Your task to perform on an android device: Go to internet settings Image 0: 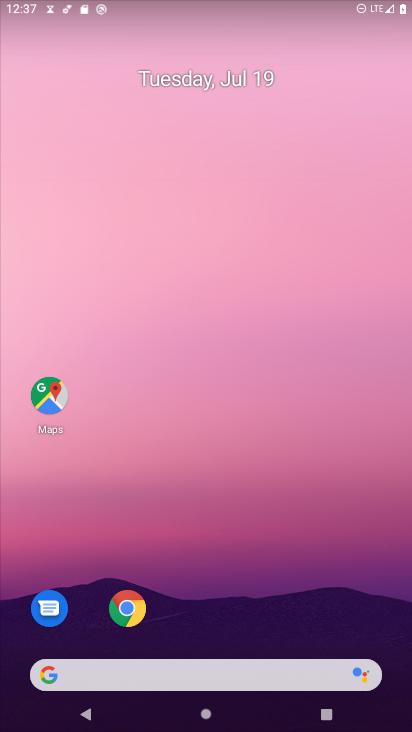
Step 0: drag from (292, 636) to (319, 75)
Your task to perform on an android device: Go to internet settings Image 1: 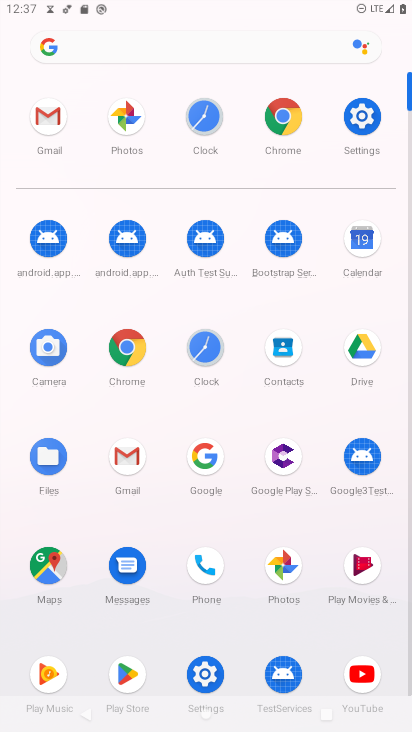
Step 1: click (370, 121)
Your task to perform on an android device: Go to internet settings Image 2: 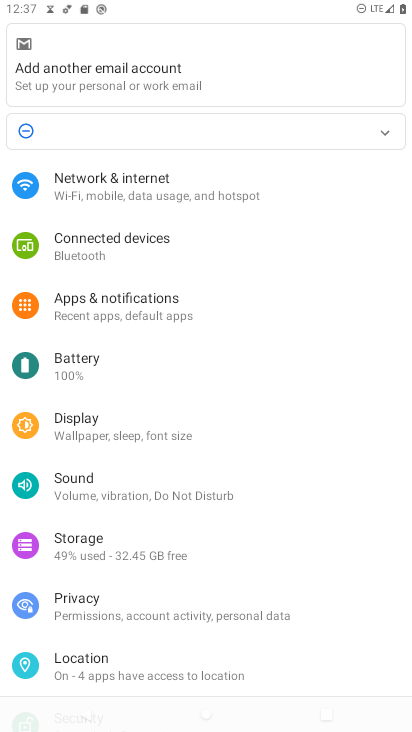
Step 2: click (223, 180)
Your task to perform on an android device: Go to internet settings Image 3: 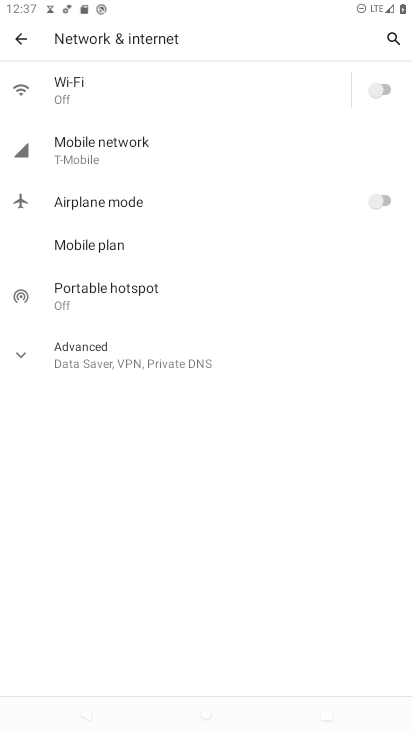
Step 3: click (99, 146)
Your task to perform on an android device: Go to internet settings Image 4: 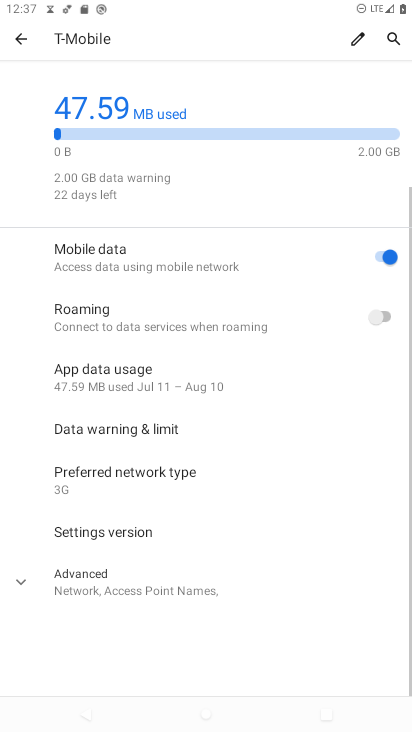
Step 4: task complete